Your task to perform on an android device: Is it going to rain today? Image 0: 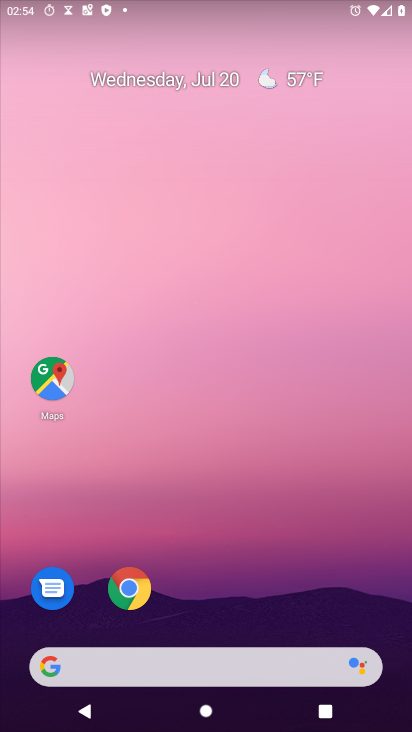
Step 0: drag from (306, 648) to (270, 13)
Your task to perform on an android device: Is it going to rain today? Image 1: 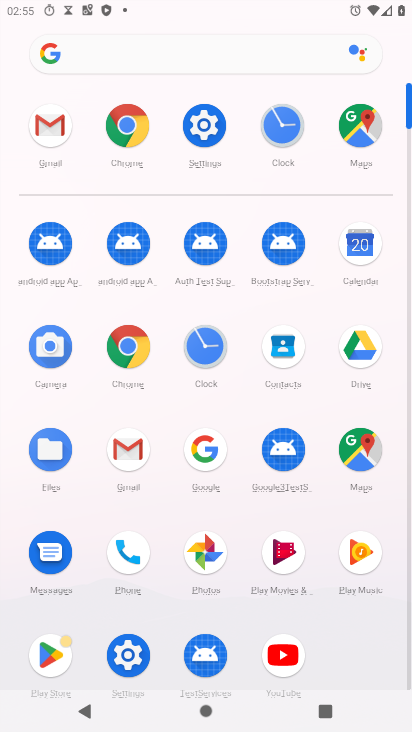
Step 1: click (147, 353)
Your task to perform on an android device: Is it going to rain today? Image 2: 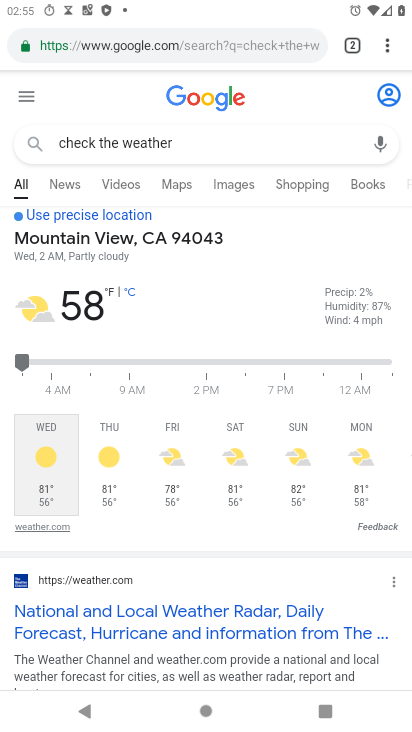
Step 2: click (395, 47)
Your task to perform on an android device: Is it going to rain today? Image 3: 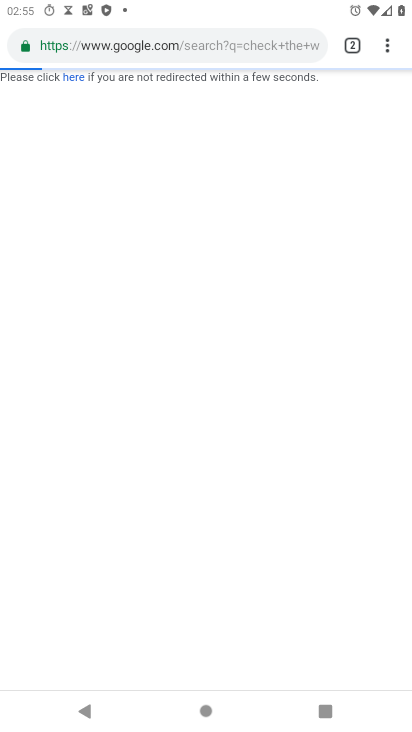
Step 3: click (211, 53)
Your task to perform on an android device: Is it going to rain today? Image 4: 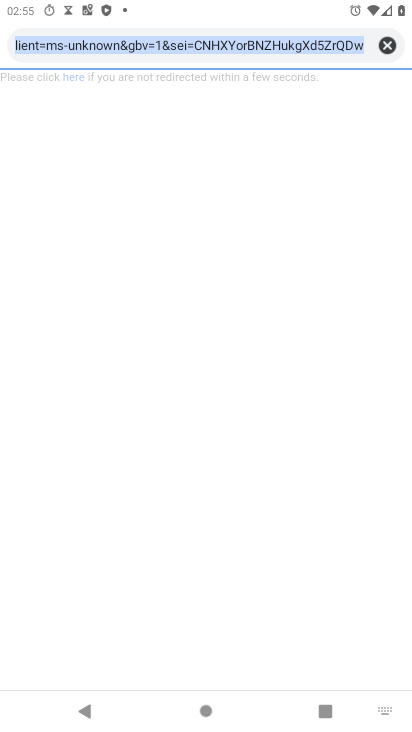
Step 4: click (169, 37)
Your task to perform on an android device: Is it going to rain today? Image 5: 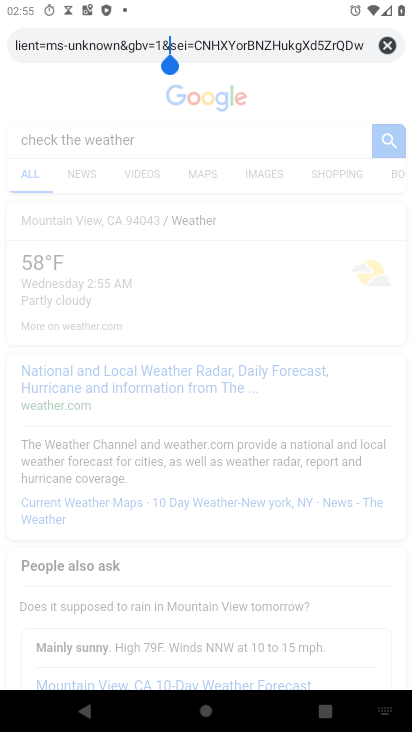
Step 5: click (394, 46)
Your task to perform on an android device: Is it going to rain today? Image 6: 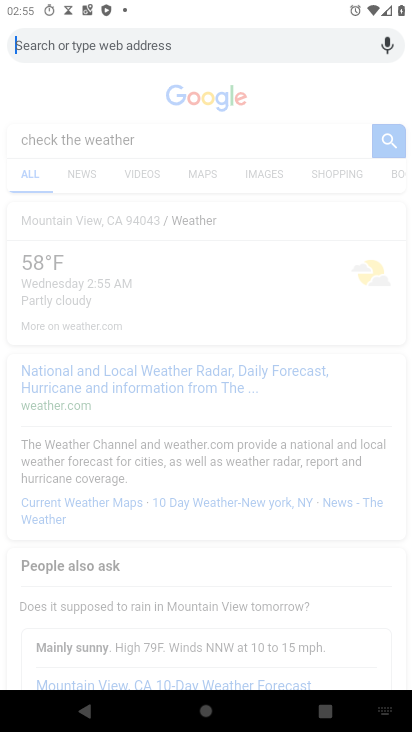
Step 6: click (307, 52)
Your task to perform on an android device: Is it going to rain today? Image 7: 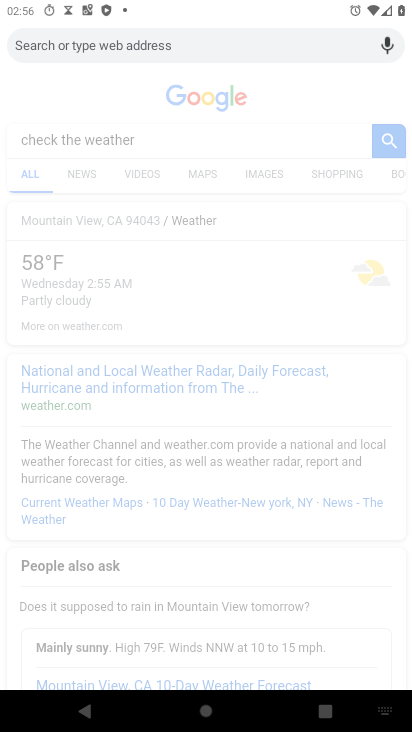
Step 7: type "going to rain today"
Your task to perform on an android device: Is it going to rain today? Image 8: 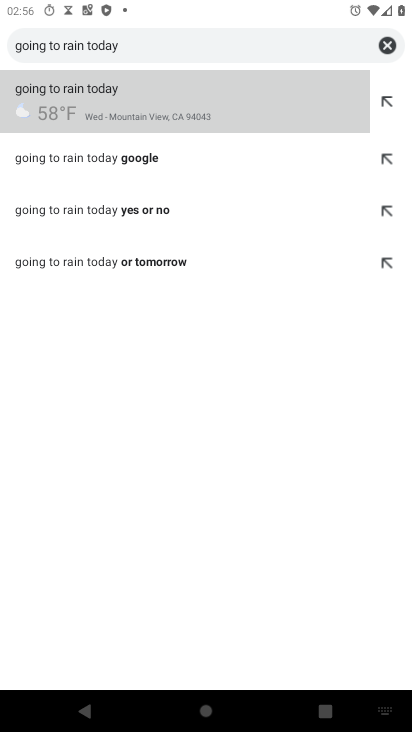
Step 8: click (225, 89)
Your task to perform on an android device: Is it going to rain today? Image 9: 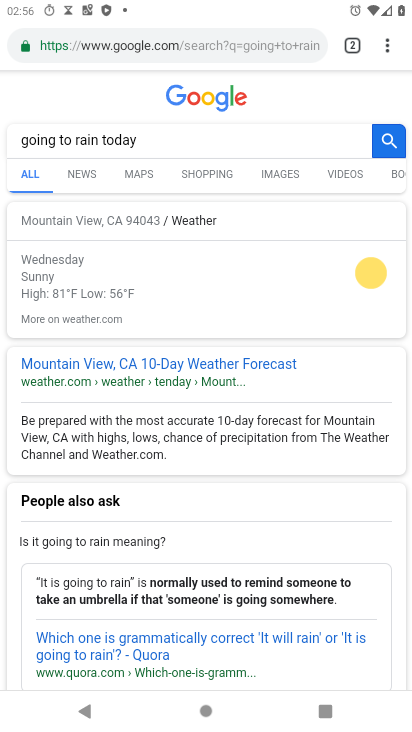
Step 9: task complete